Your task to perform on an android device: Go to Android settings Image 0: 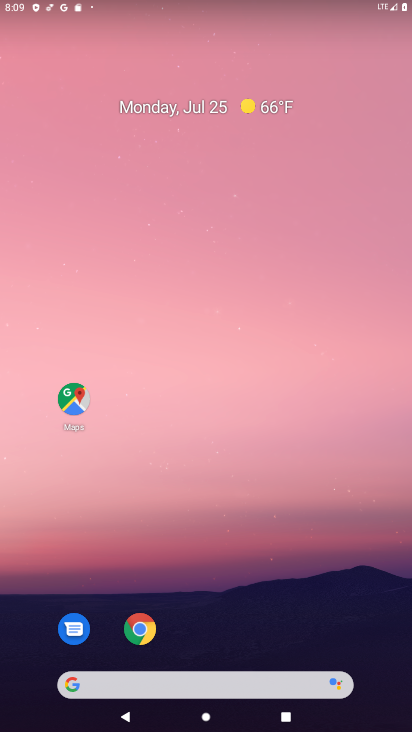
Step 0: press home button
Your task to perform on an android device: Go to Android settings Image 1: 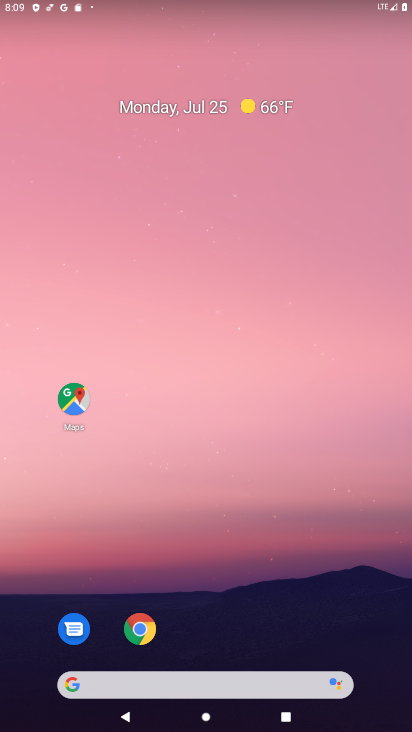
Step 1: drag from (217, 645) to (222, 118)
Your task to perform on an android device: Go to Android settings Image 2: 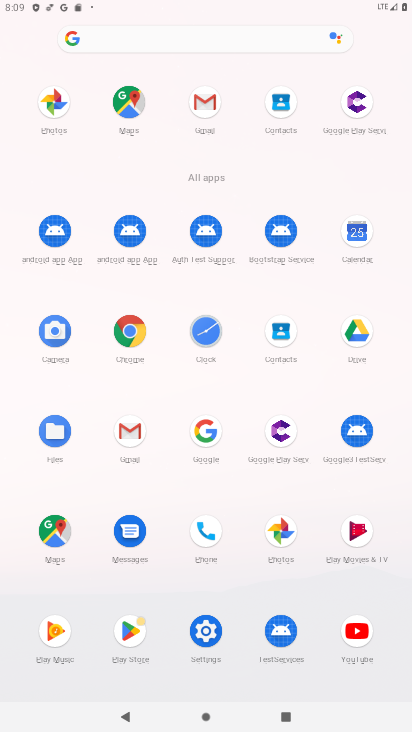
Step 2: click (204, 625)
Your task to perform on an android device: Go to Android settings Image 3: 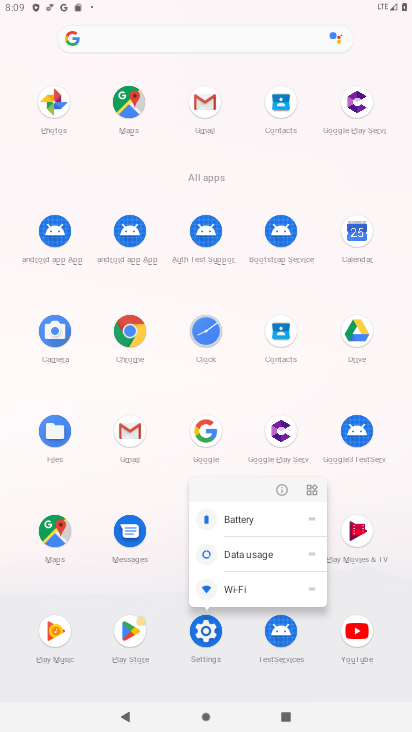
Step 3: click (206, 627)
Your task to perform on an android device: Go to Android settings Image 4: 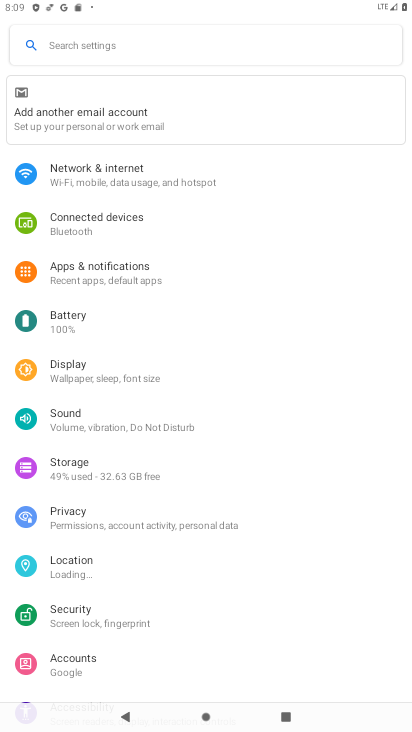
Step 4: drag from (153, 668) to (211, 156)
Your task to perform on an android device: Go to Android settings Image 5: 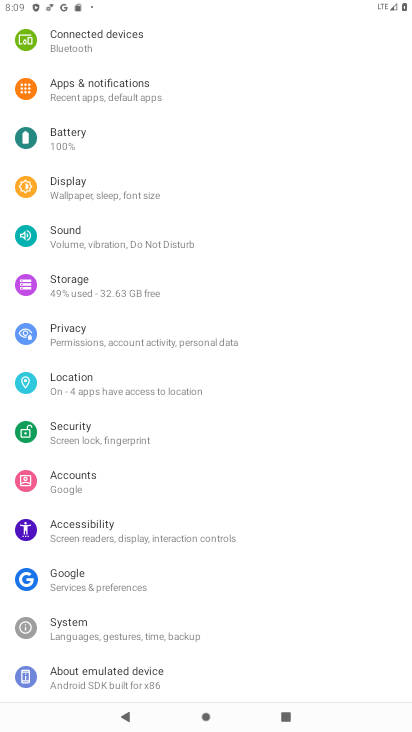
Step 5: click (171, 677)
Your task to perform on an android device: Go to Android settings Image 6: 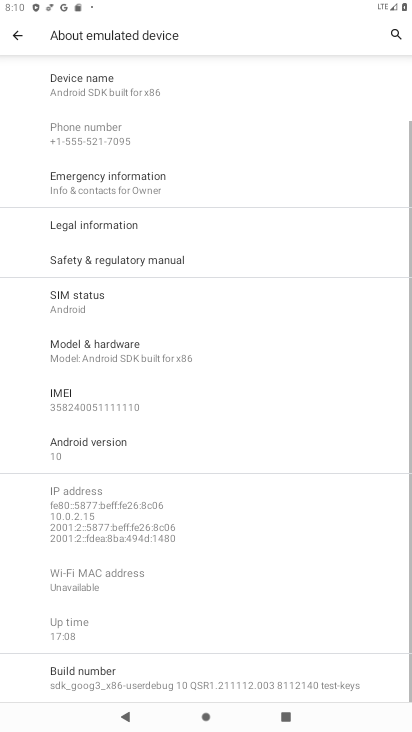
Step 6: click (99, 442)
Your task to perform on an android device: Go to Android settings Image 7: 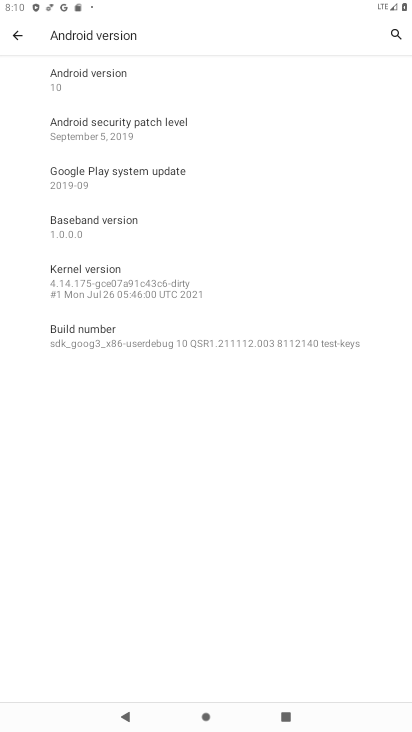
Step 7: task complete